Your task to perform on an android device: Add sony triple a to the cart on ebay Image 0: 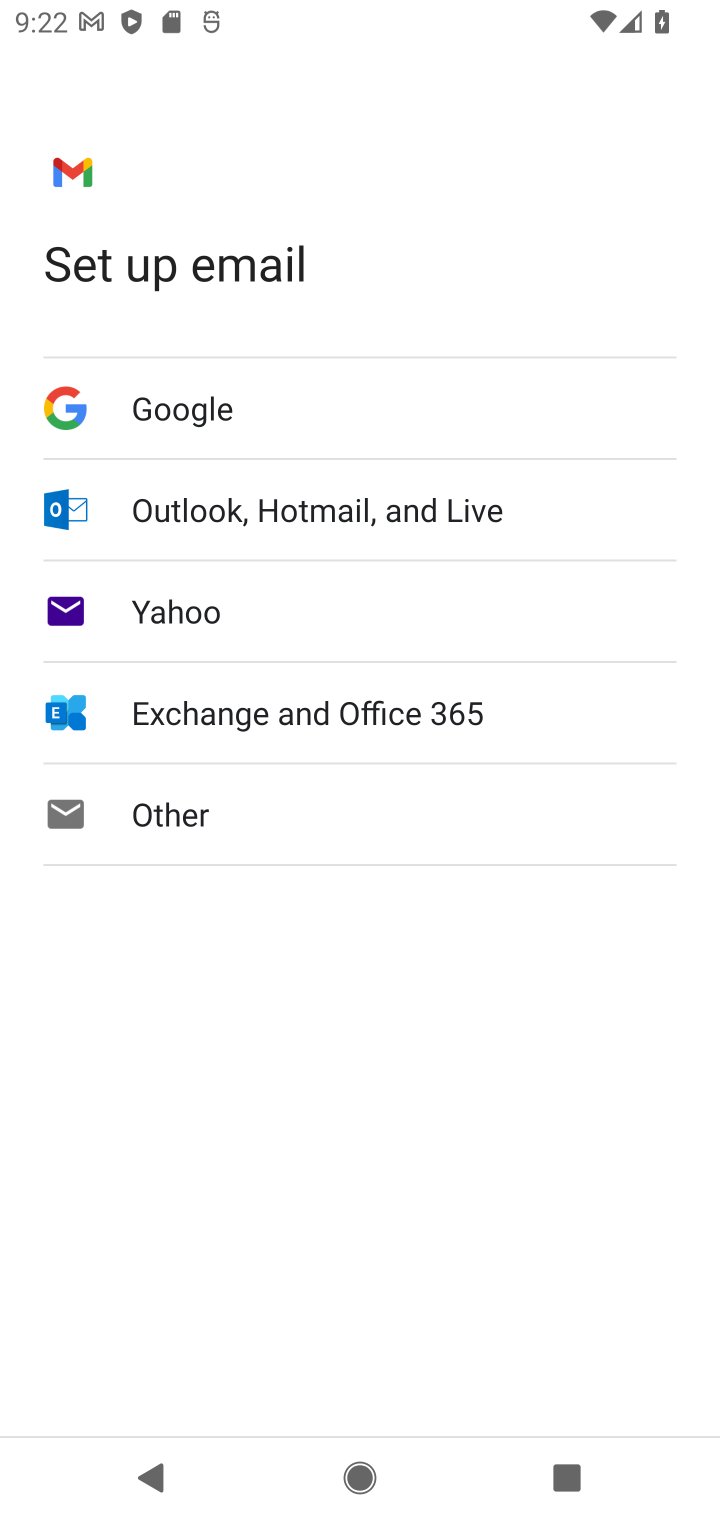
Step 0: press home button
Your task to perform on an android device: Add sony triple a to the cart on ebay Image 1: 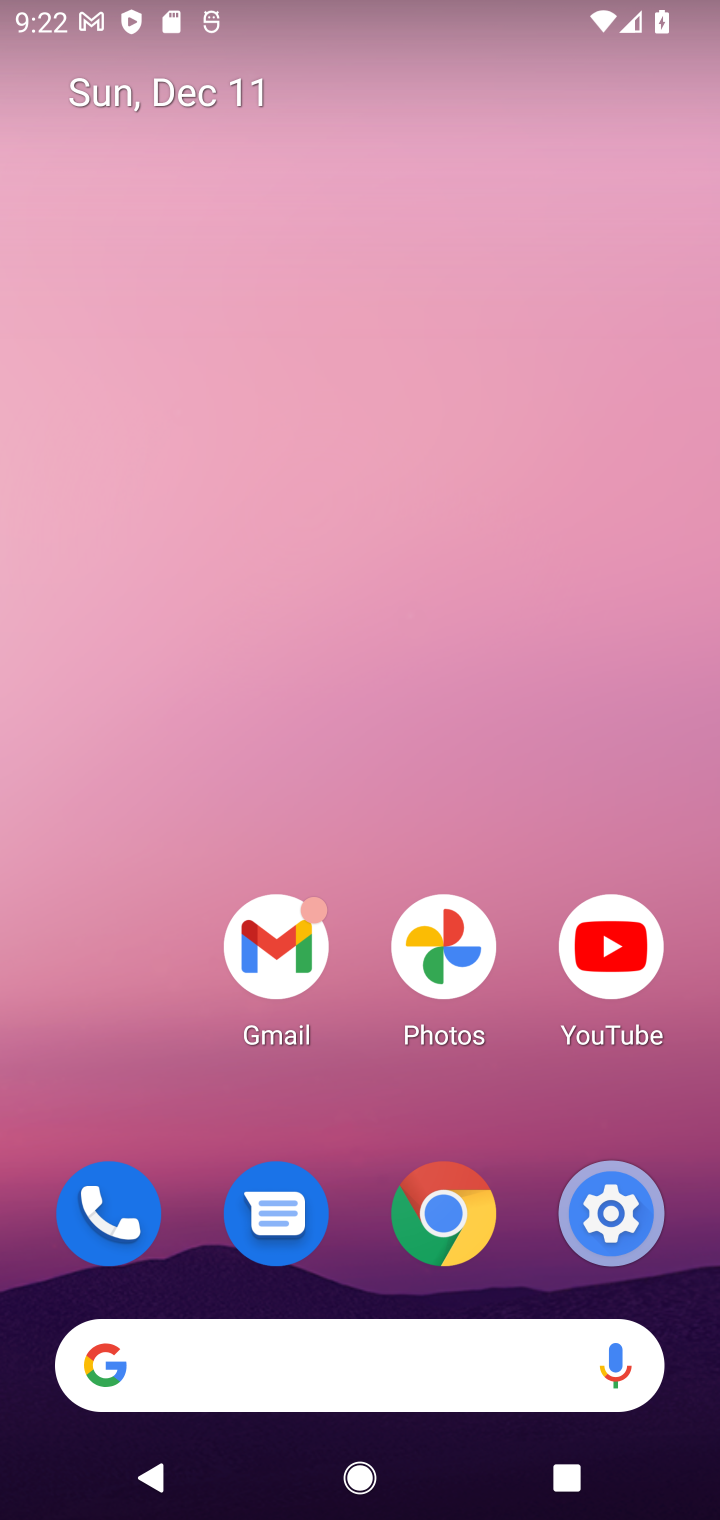
Step 1: click (454, 1387)
Your task to perform on an android device: Add sony triple a to the cart on ebay Image 2: 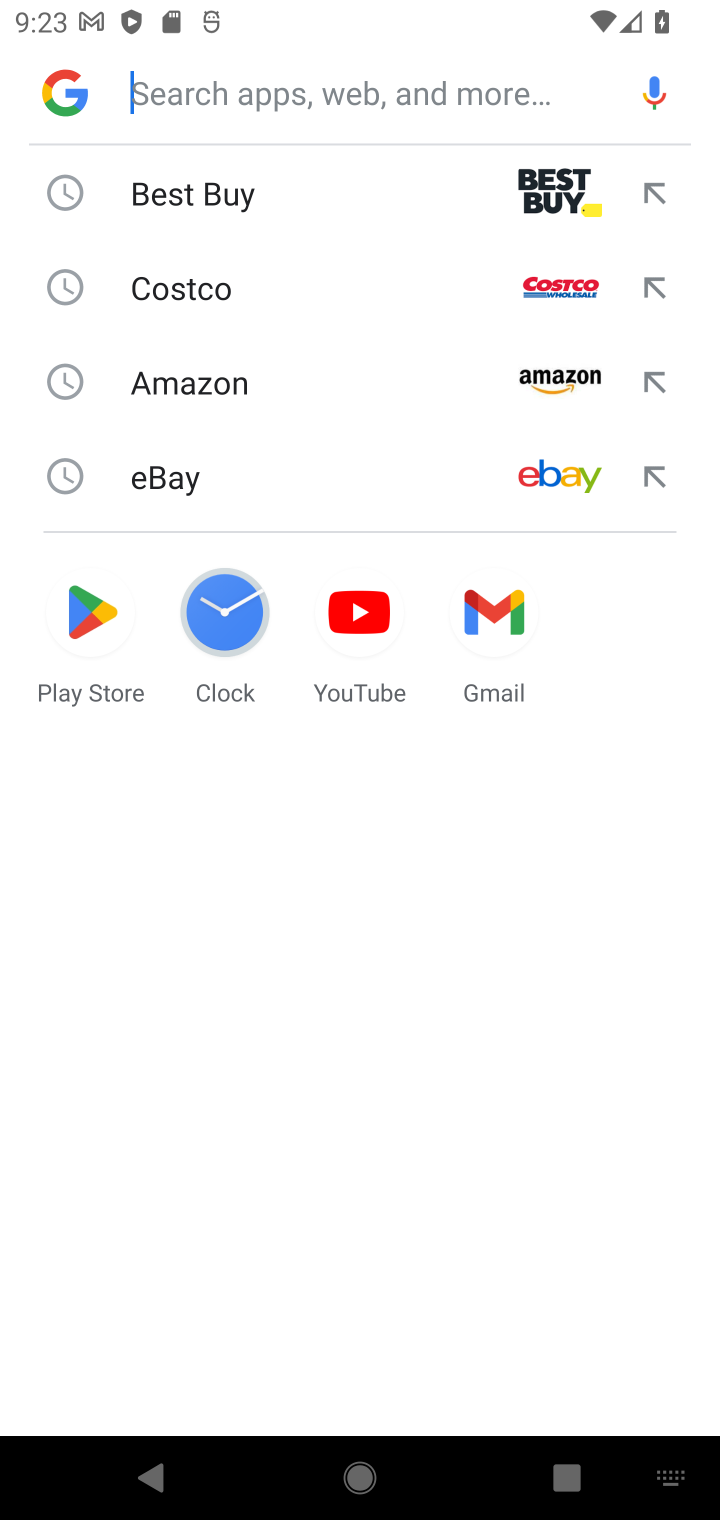
Step 2: type "ebay"
Your task to perform on an android device: Add sony triple a to the cart on ebay Image 3: 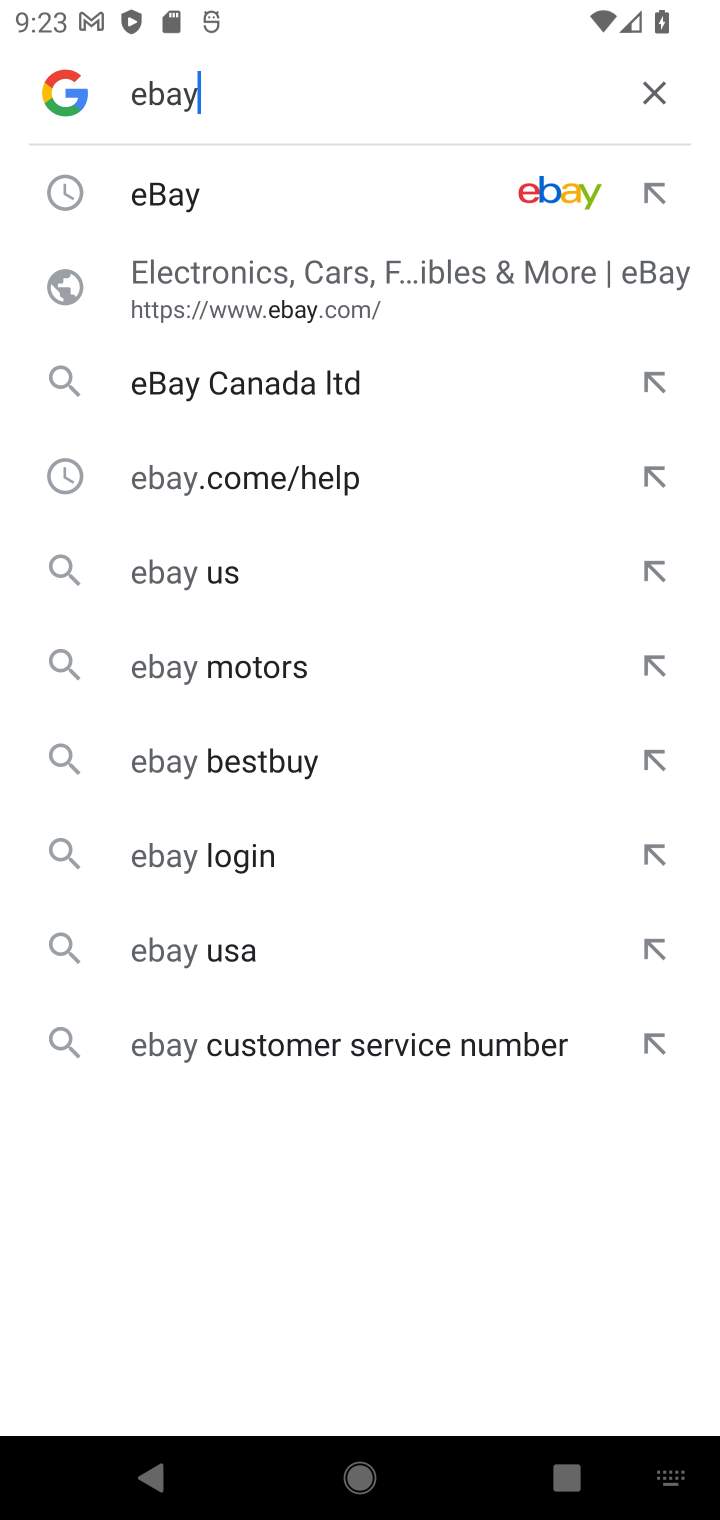
Step 3: click (193, 228)
Your task to perform on an android device: Add sony triple a to the cart on ebay Image 4: 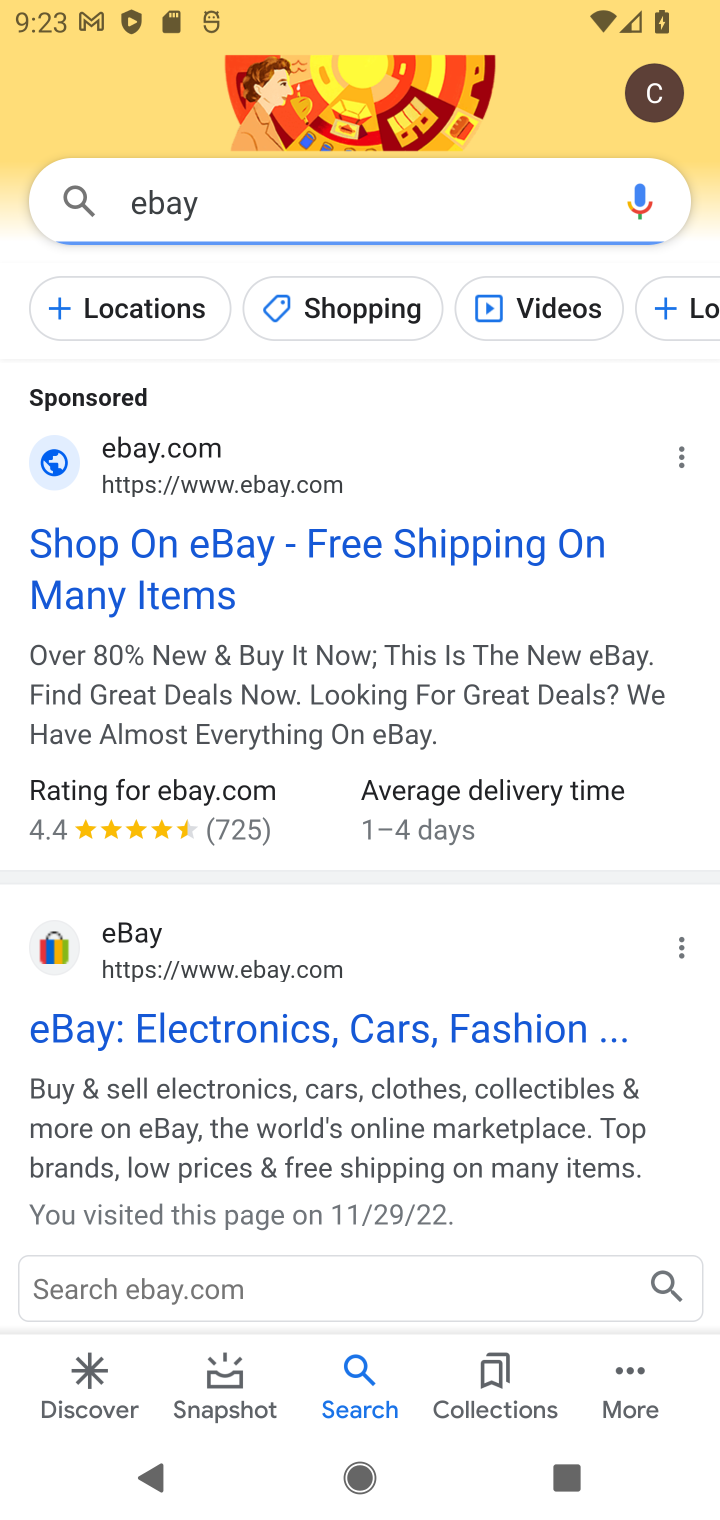
Step 4: click (148, 592)
Your task to perform on an android device: Add sony triple a to the cart on ebay Image 5: 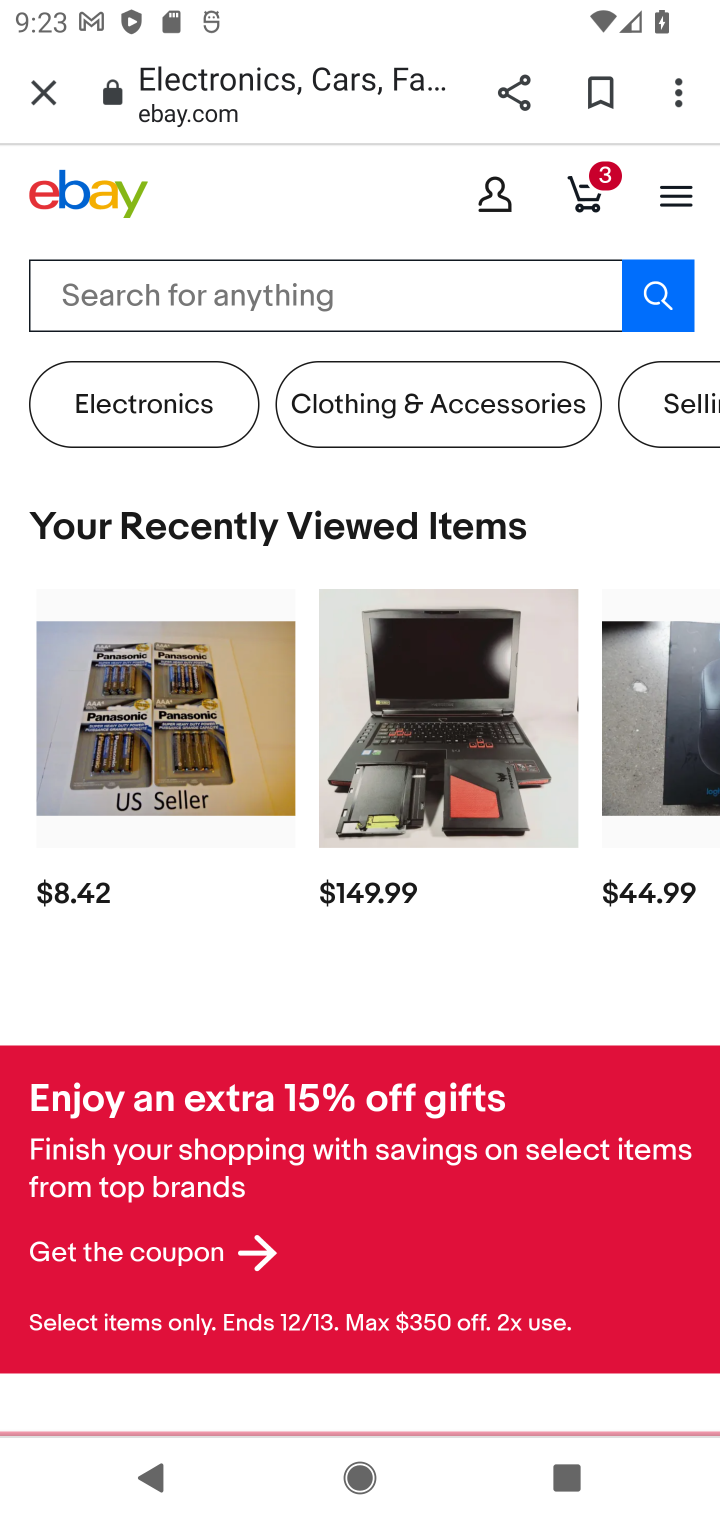
Step 5: click (416, 317)
Your task to perform on an android device: Add sony triple a to the cart on ebay Image 6: 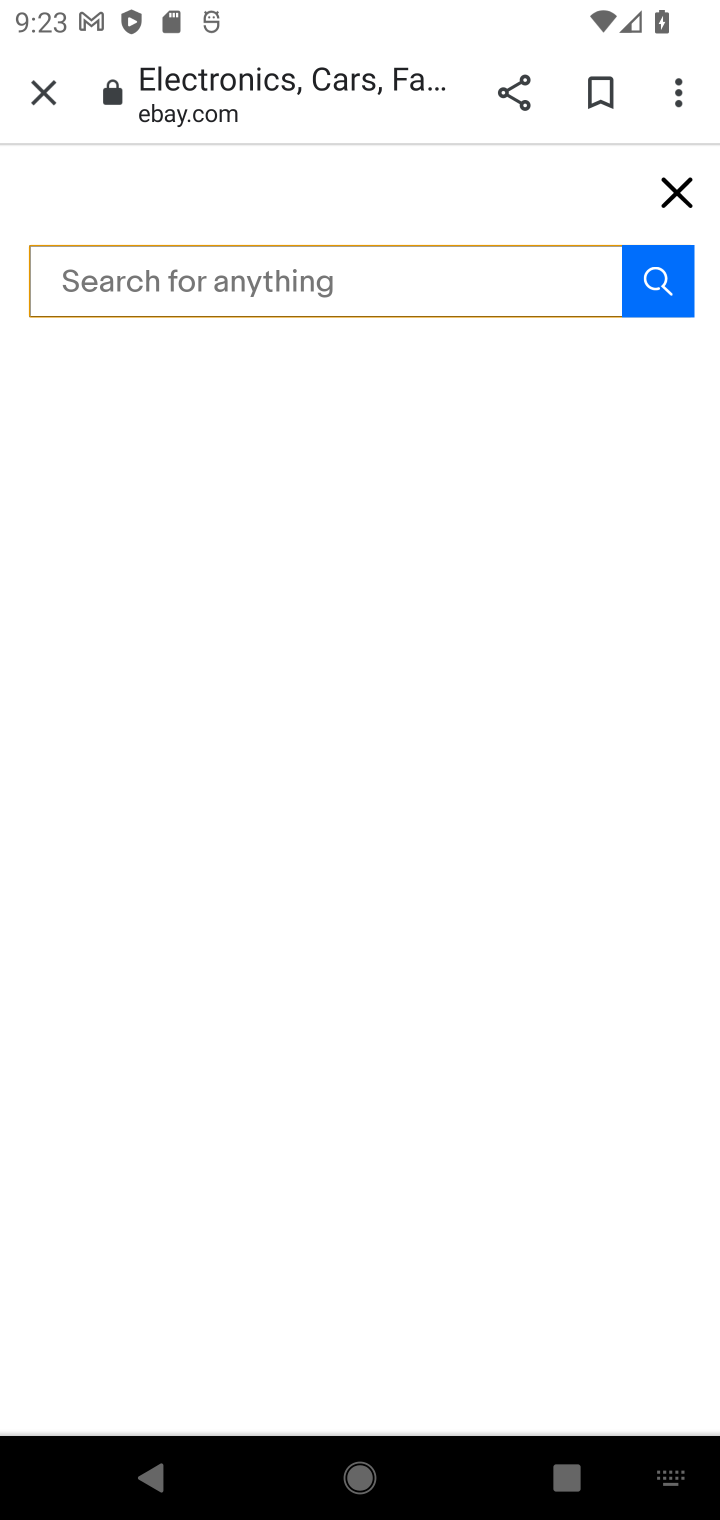
Step 6: type "sony triple a"
Your task to perform on an android device: Add sony triple a to the cart on ebay Image 7: 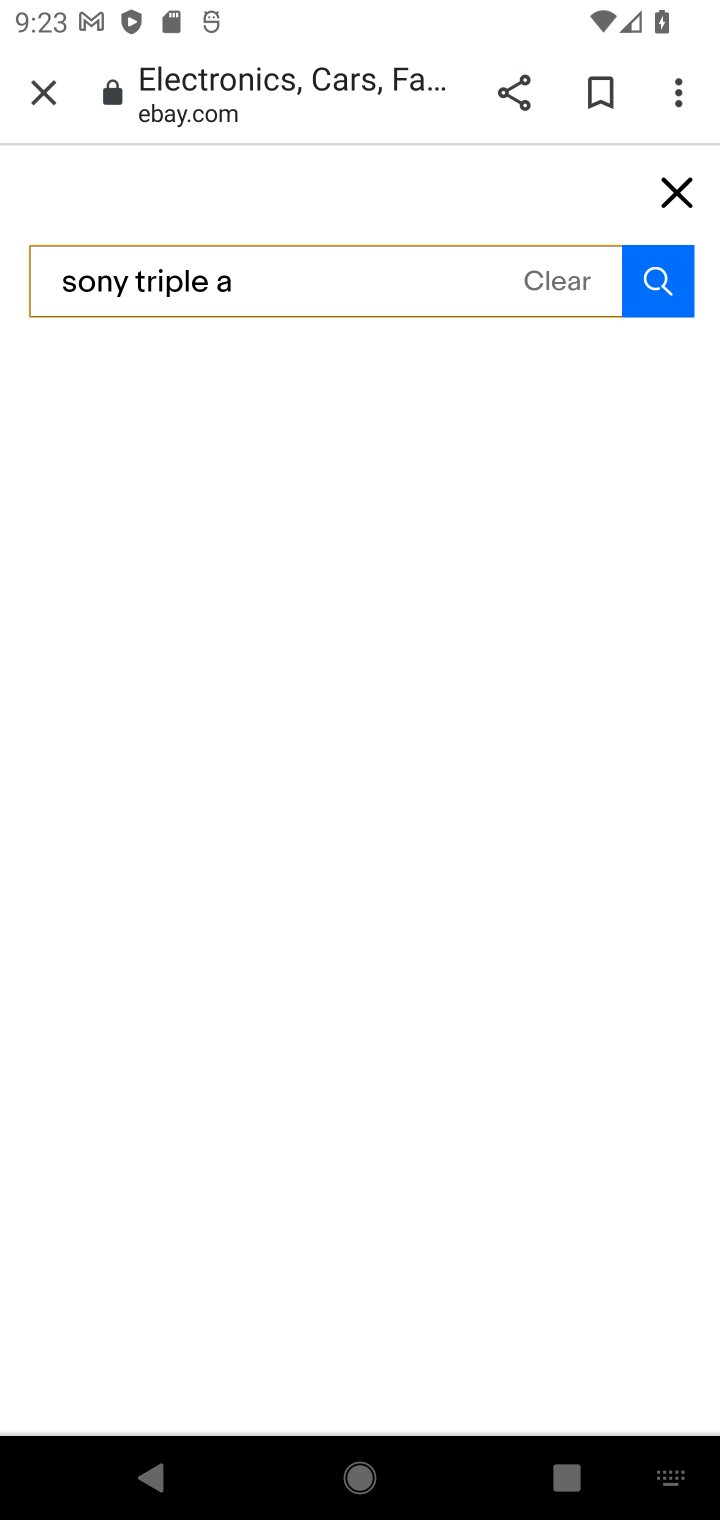
Step 7: click (653, 290)
Your task to perform on an android device: Add sony triple a to the cart on ebay Image 8: 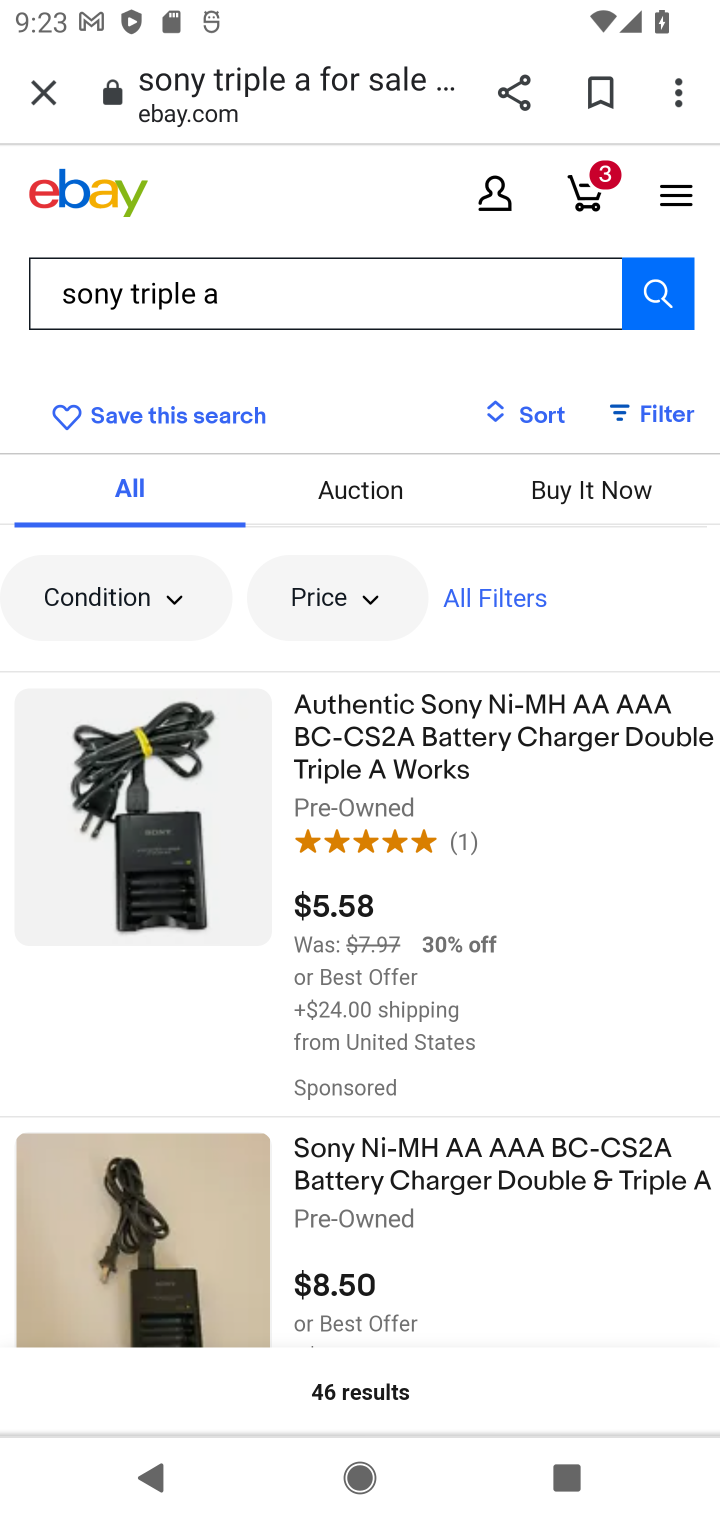
Step 8: click (666, 279)
Your task to perform on an android device: Add sony triple a to the cart on ebay Image 9: 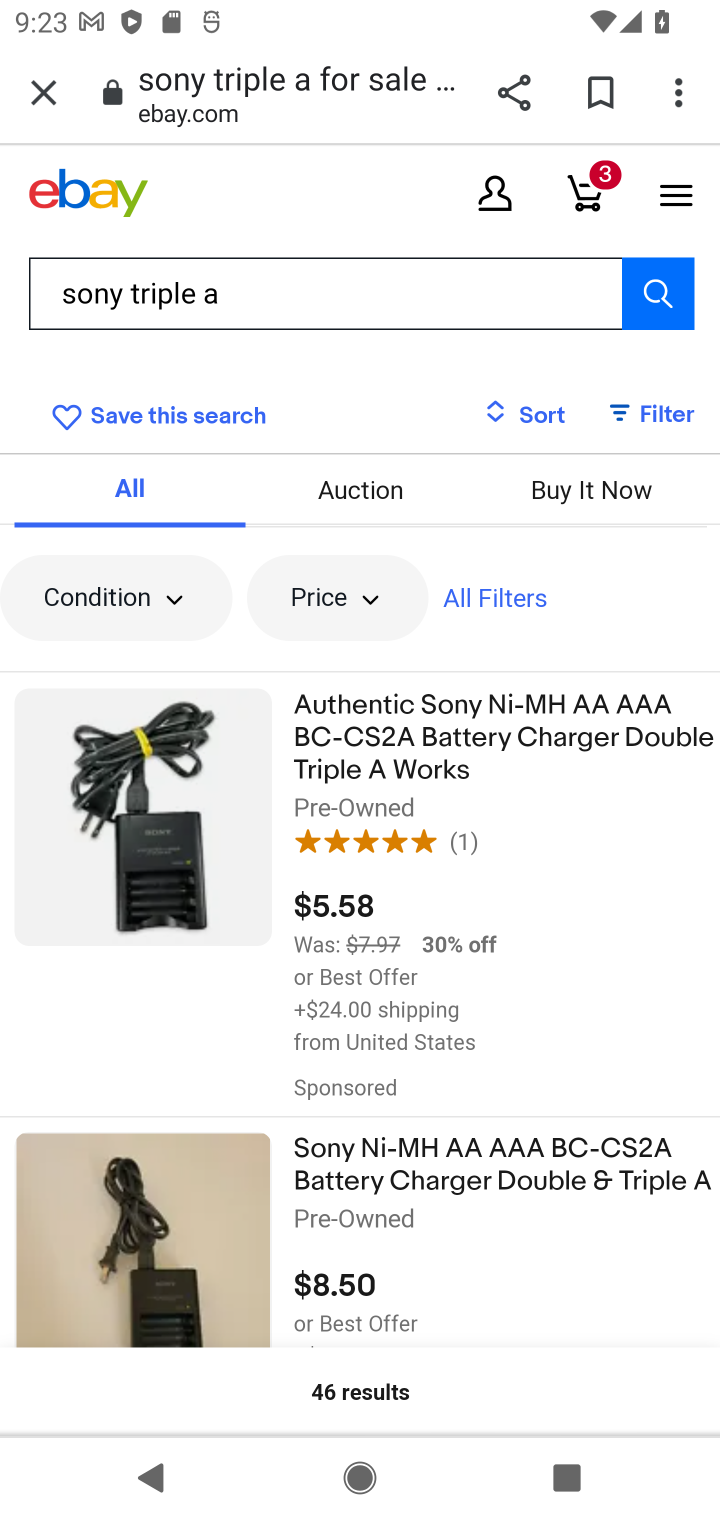
Step 9: click (657, 288)
Your task to perform on an android device: Add sony triple a to the cart on ebay Image 10: 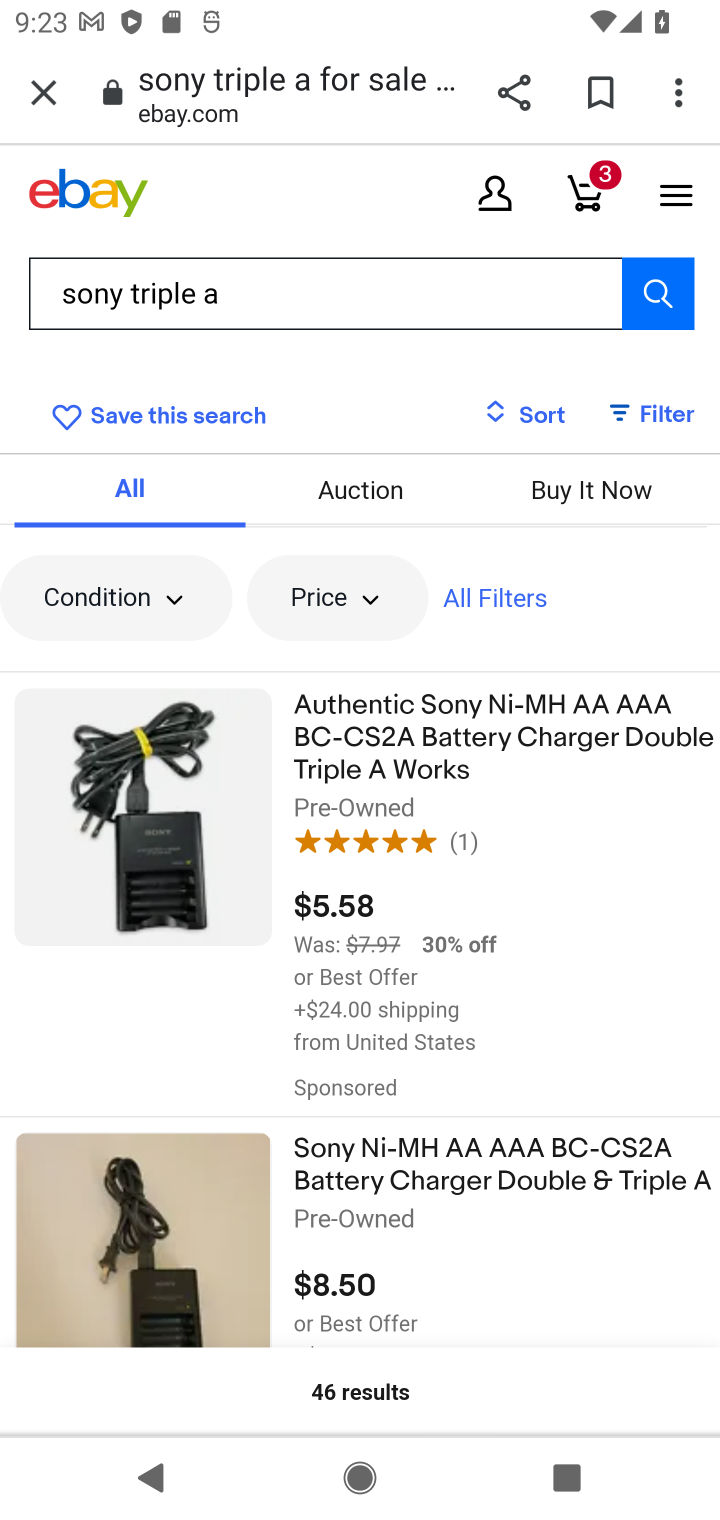
Step 10: click (318, 707)
Your task to perform on an android device: Add sony triple a to the cart on ebay Image 11: 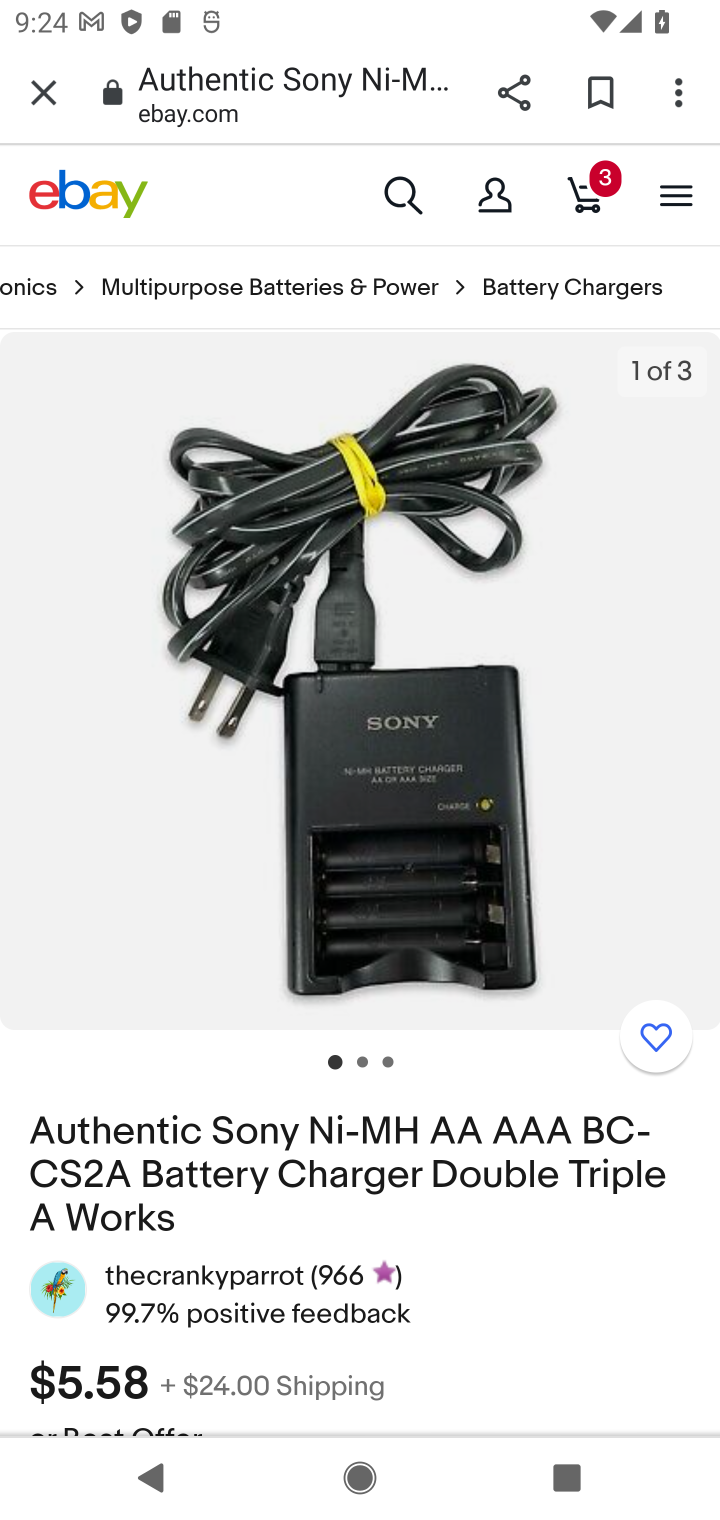
Step 11: drag from (311, 1299) to (397, 673)
Your task to perform on an android device: Add sony triple a to the cart on ebay Image 12: 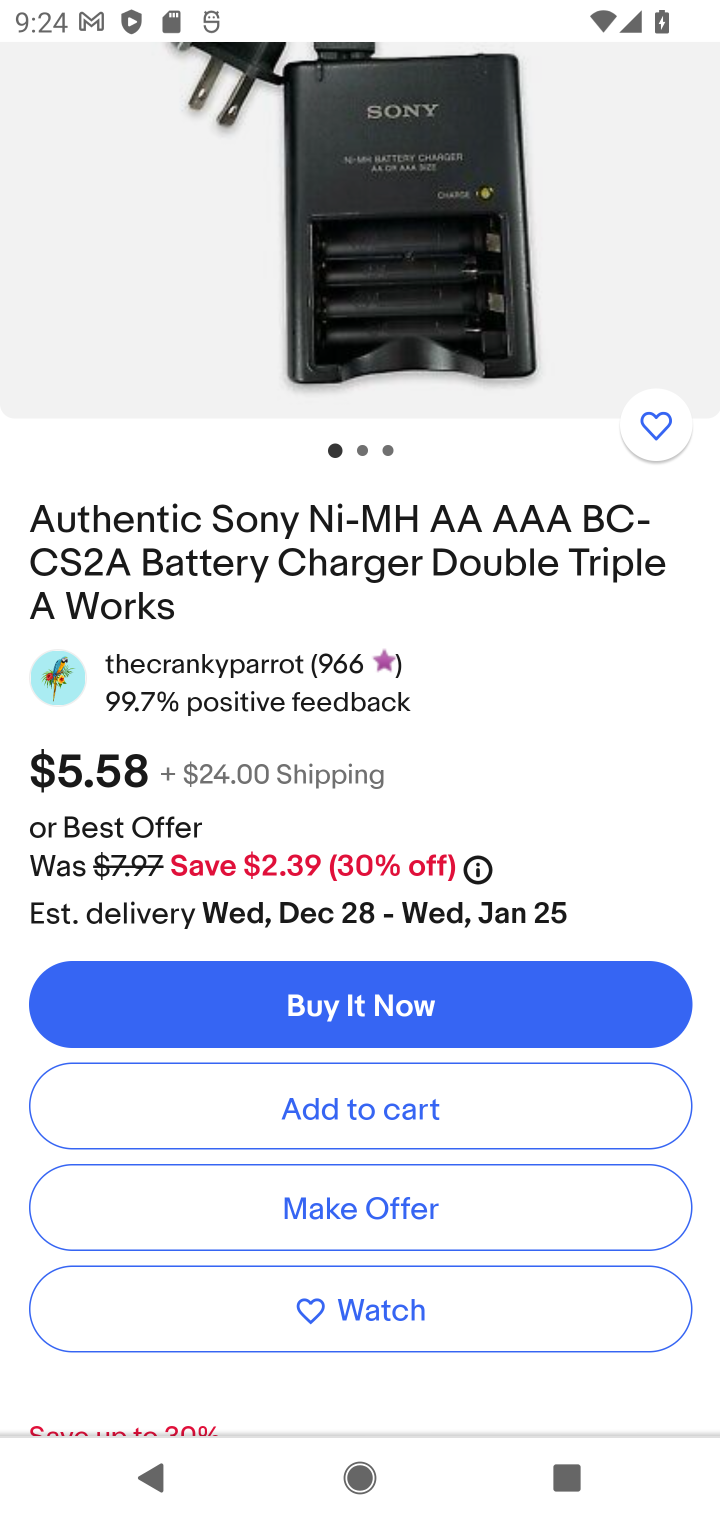
Step 12: click (323, 1123)
Your task to perform on an android device: Add sony triple a to the cart on ebay Image 13: 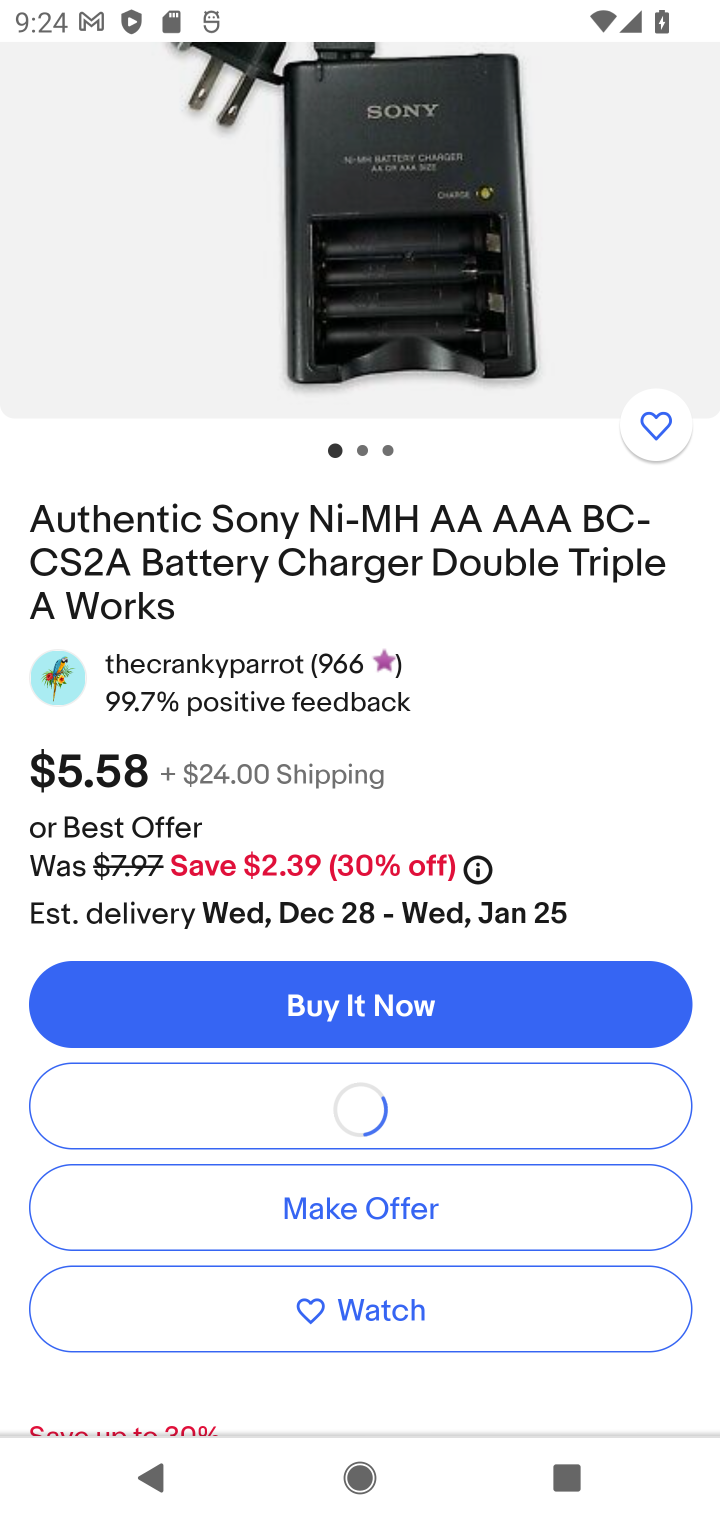
Step 13: task complete